Your task to perform on an android device: toggle translation in the chrome app Image 0: 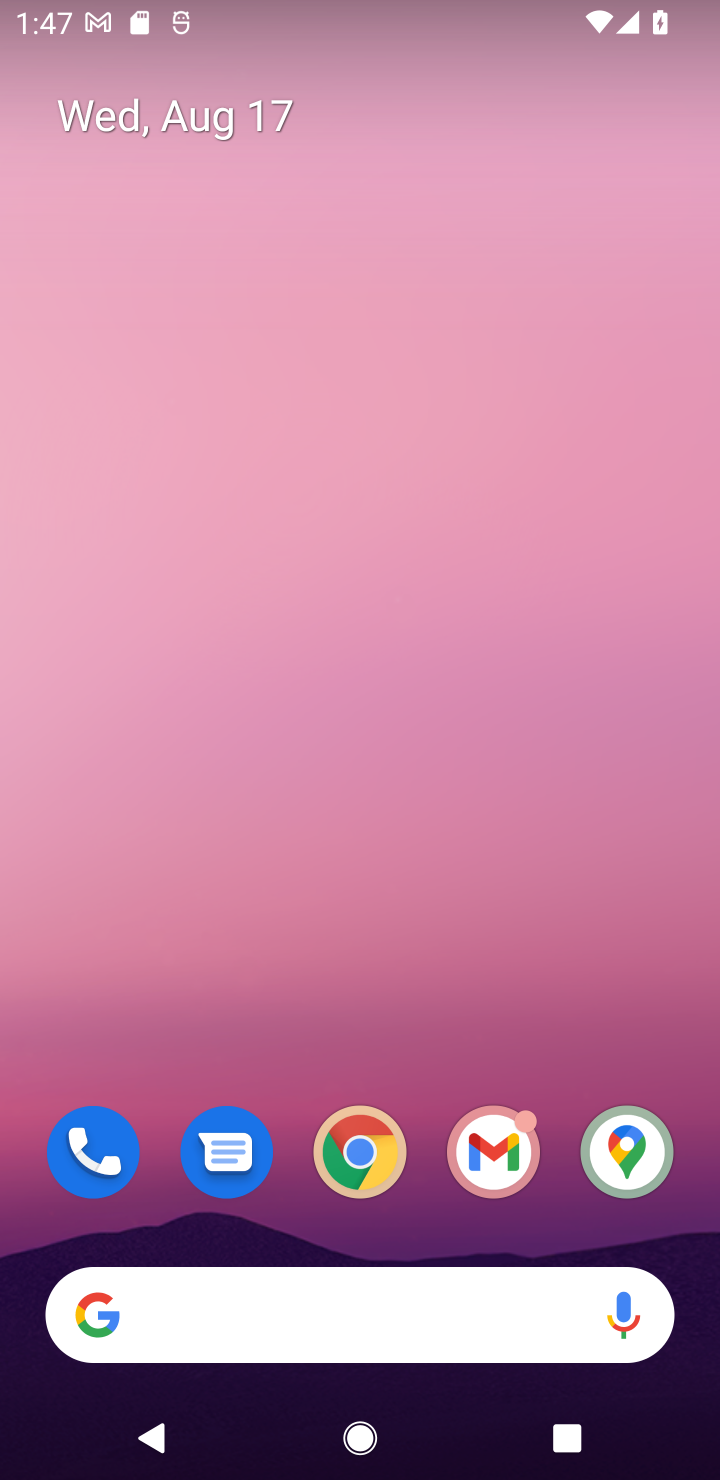
Step 0: press home button
Your task to perform on an android device: toggle translation in the chrome app Image 1: 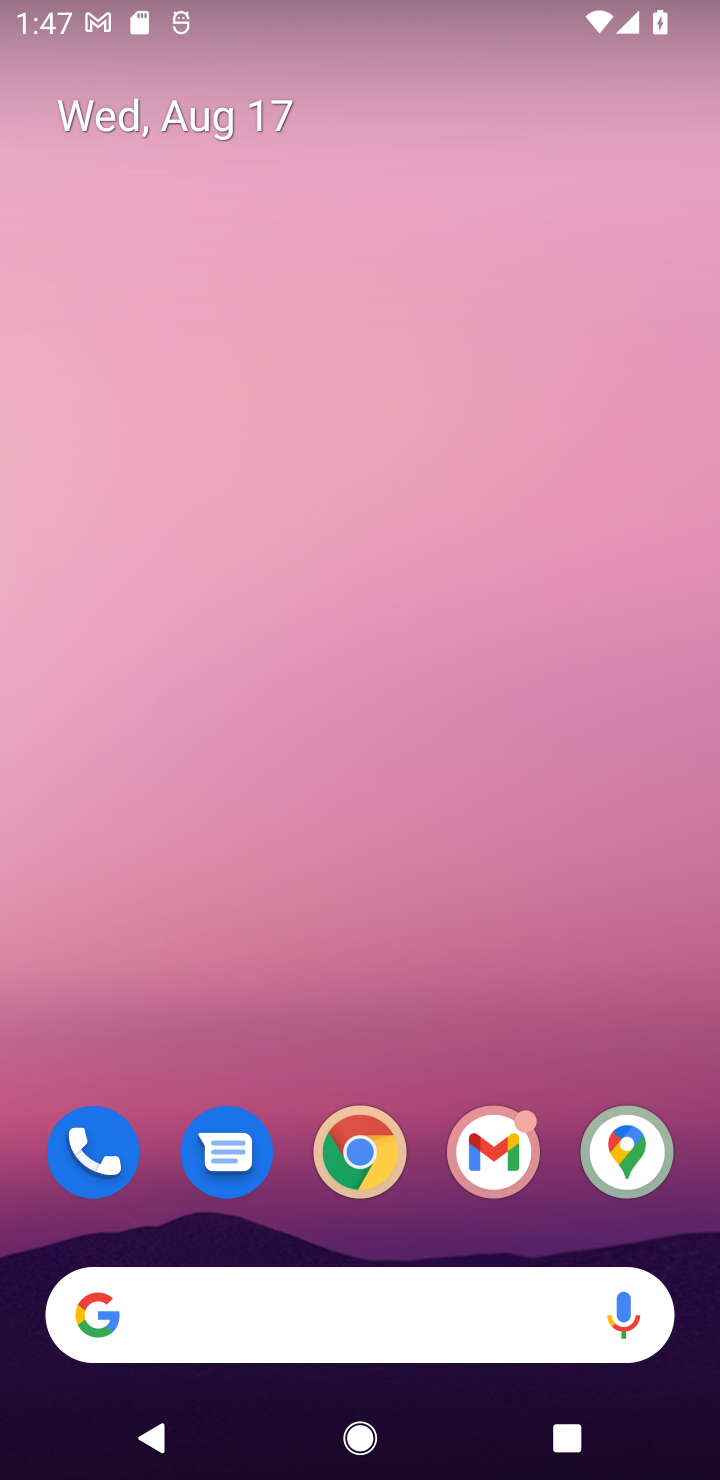
Step 1: drag from (621, 999) to (283, 38)
Your task to perform on an android device: toggle translation in the chrome app Image 2: 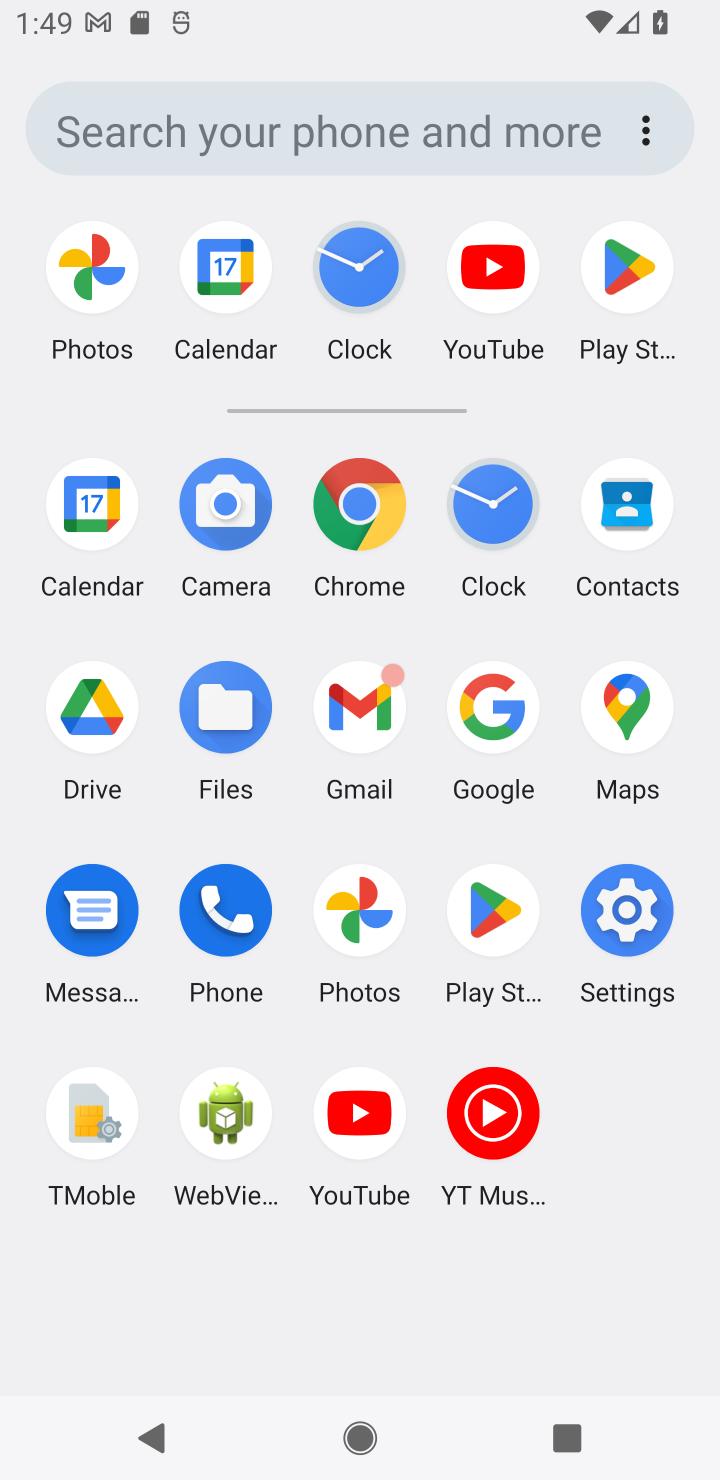
Step 2: click (364, 514)
Your task to perform on an android device: toggle translation in the chrome app Image 3: 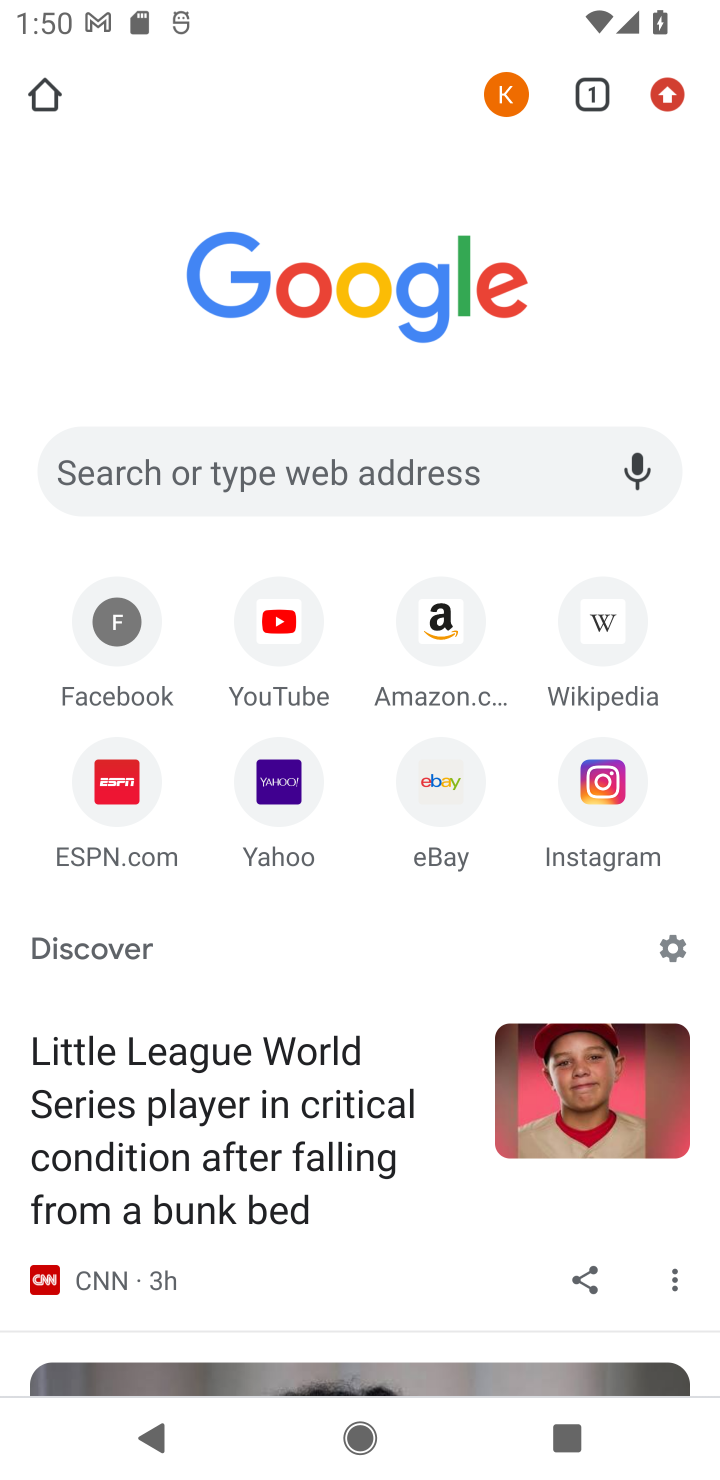
Step 3: click (673, 96)
Your task to perform on an android device: toggle translation in the chrome app Image 4: 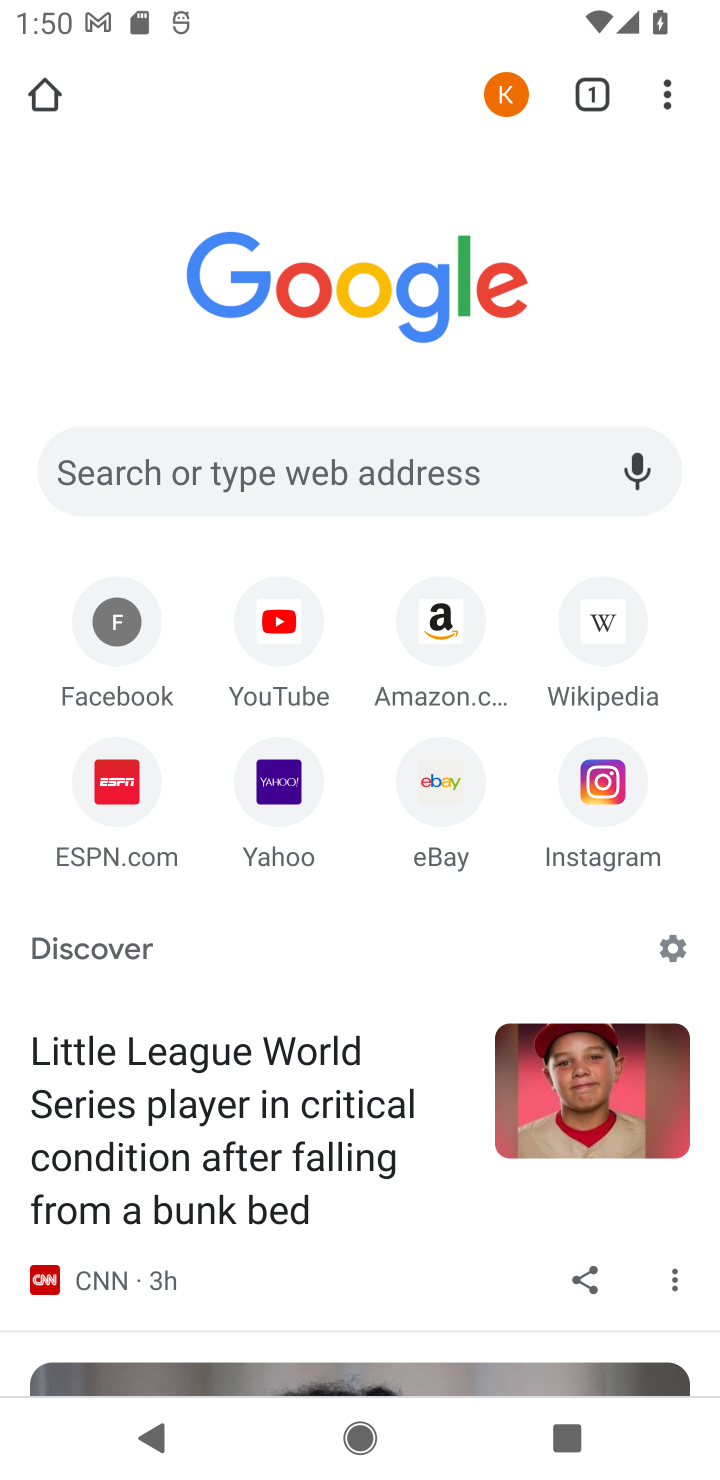
Step 4: click (655, 93)
Your task to perform on an android device: toggle translation in the chrome app Image 5: 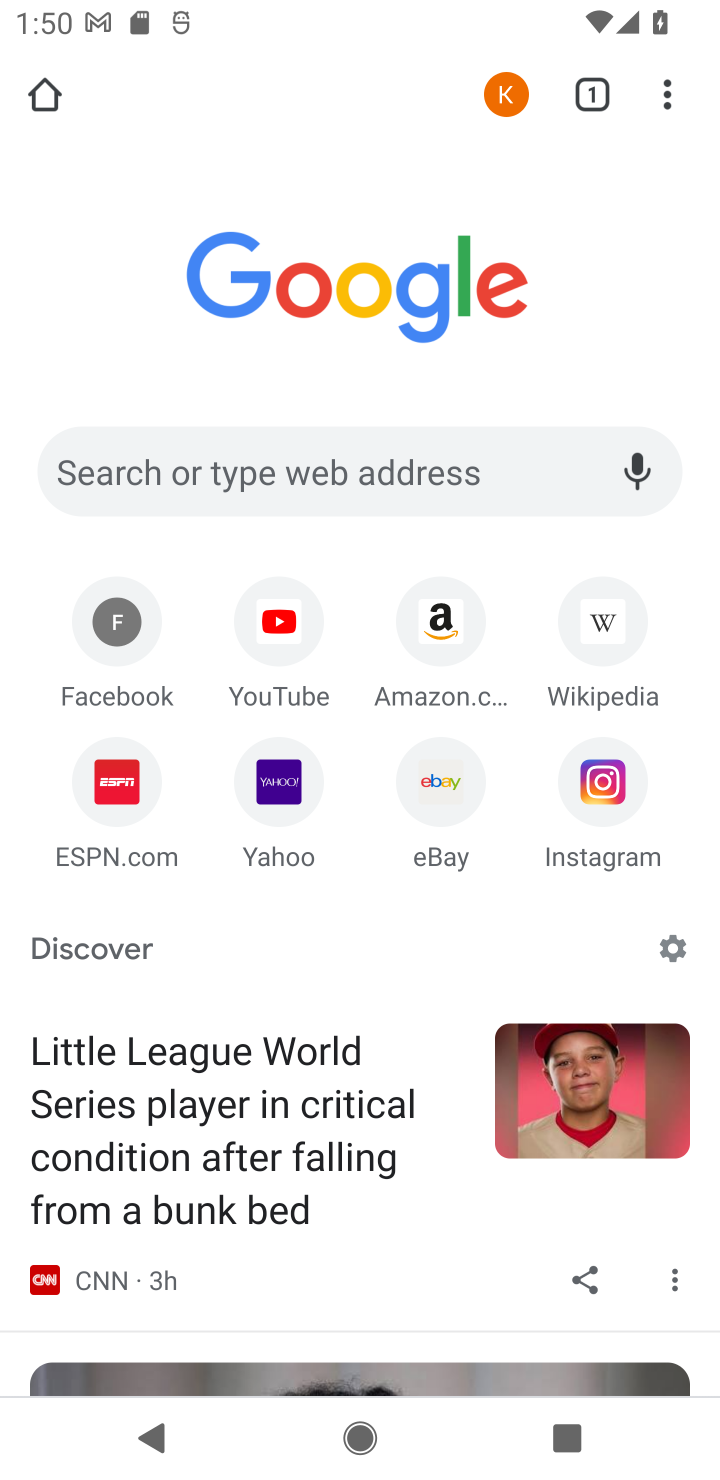
Step 5: click (657, 95)
Your task to perform on an android device: toggle translation in the chrome app Image 6: 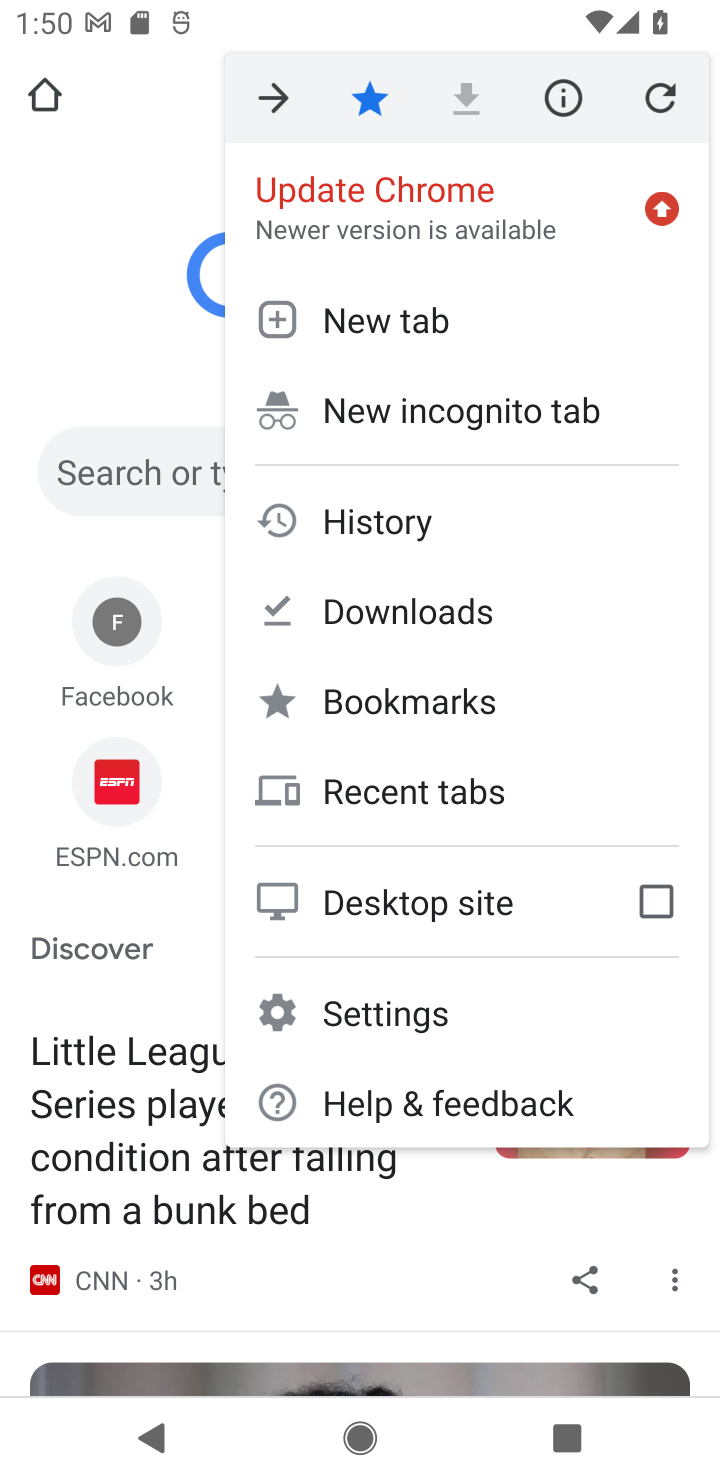
Step 6: click (355, 1021)
Your task to perform on an android device: toggle translation in the chrome app Image 7: 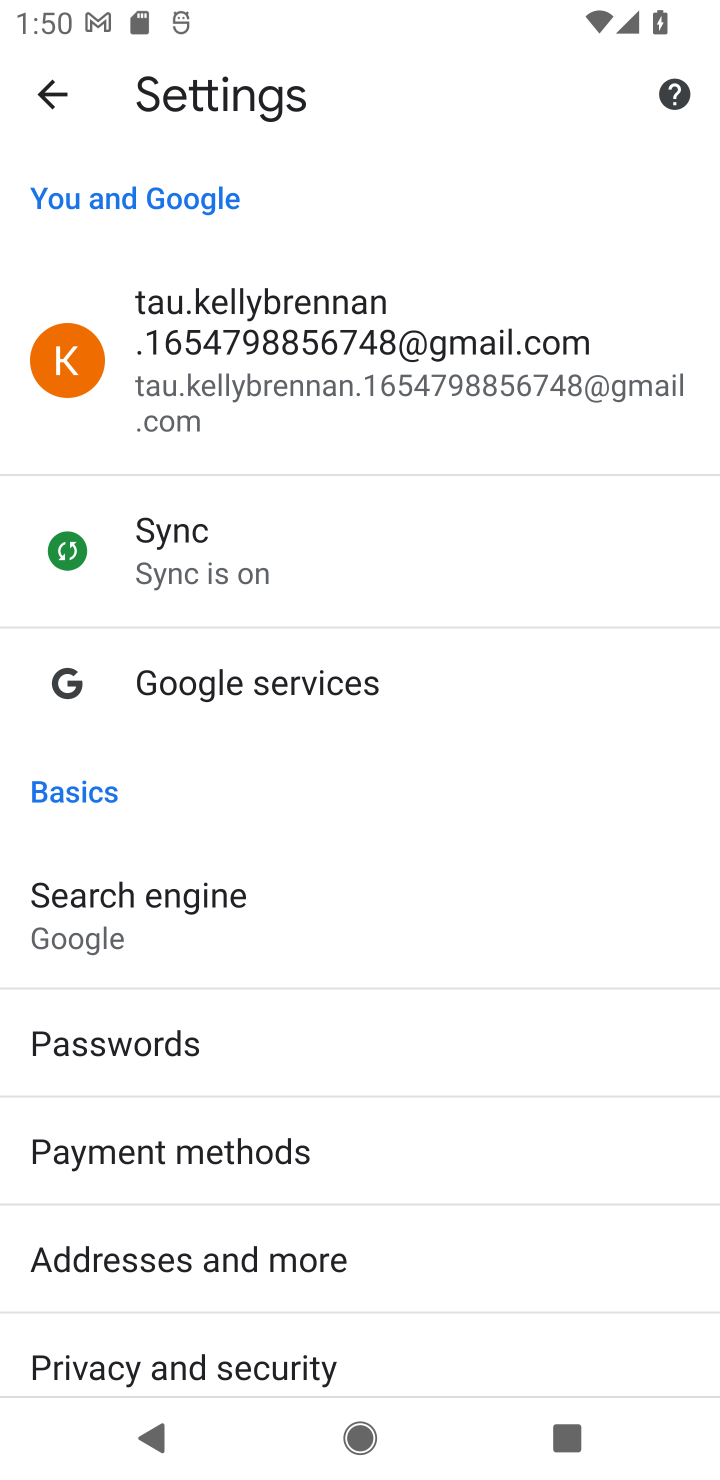
Step 7: drag from (279, 1266) to (269, 244)
Your task to perform on an android device: toggle translation in the chrome app Image 8: 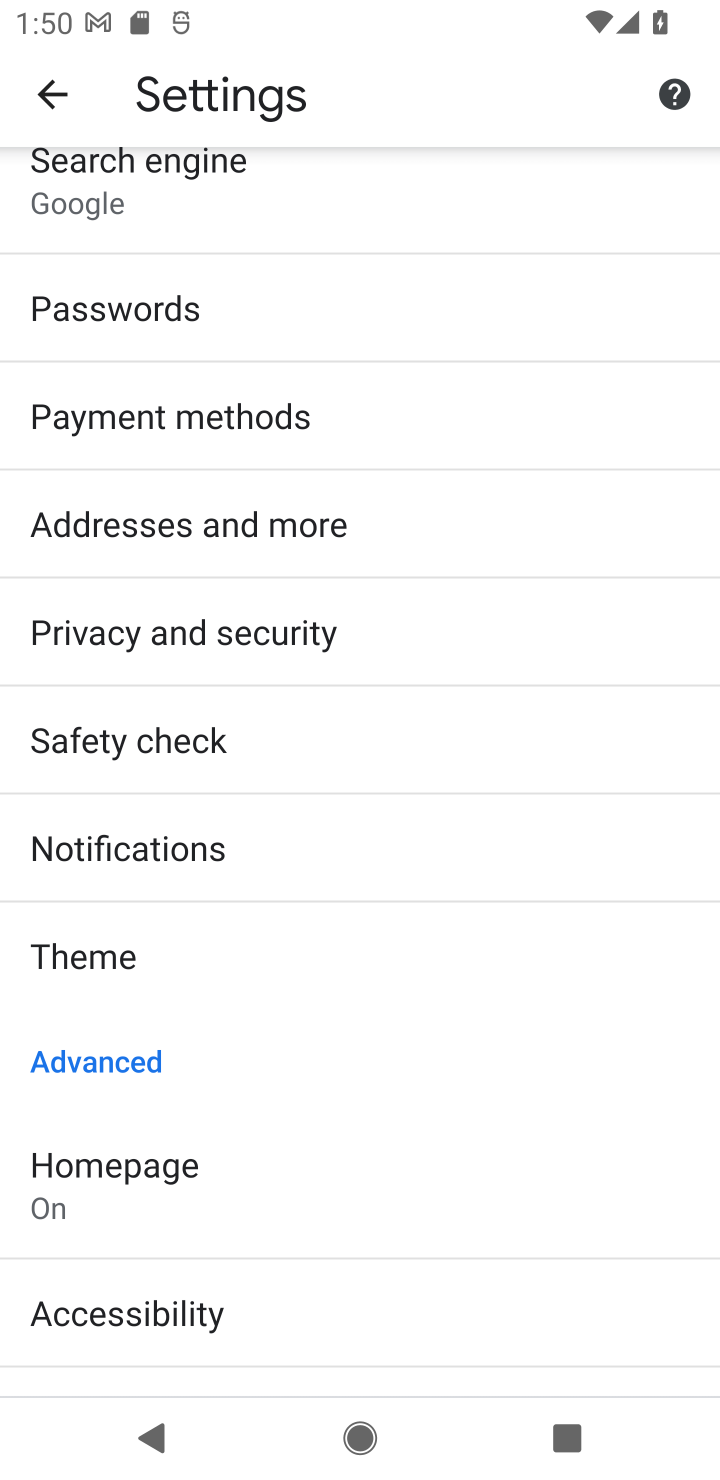
Step 8: drag from (211, 1320) to (169, 225)
Your task to perform on an android device: toggle translation in the chrome app Image 9: 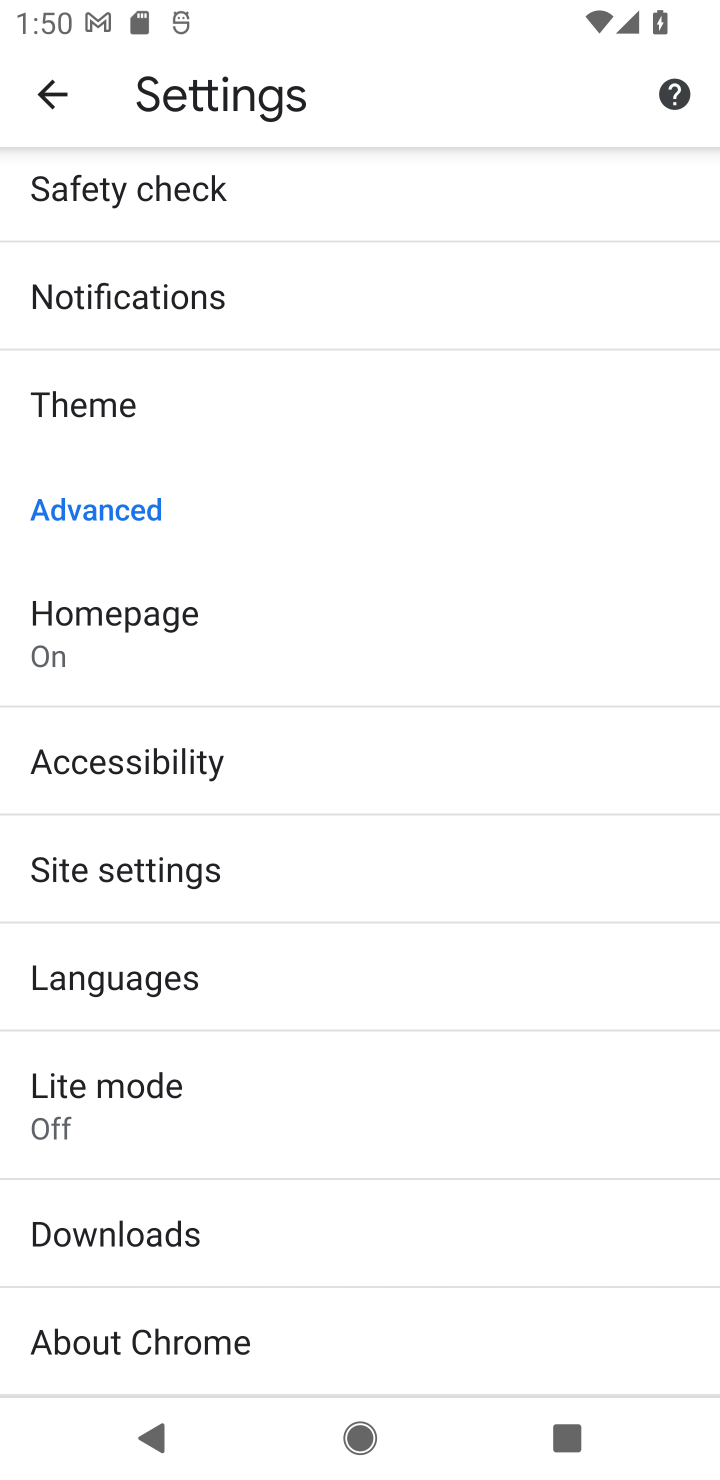
Step 9: click (167, 964)
Your task to perform on an android device: toggle translation in the chrome app Image 10: 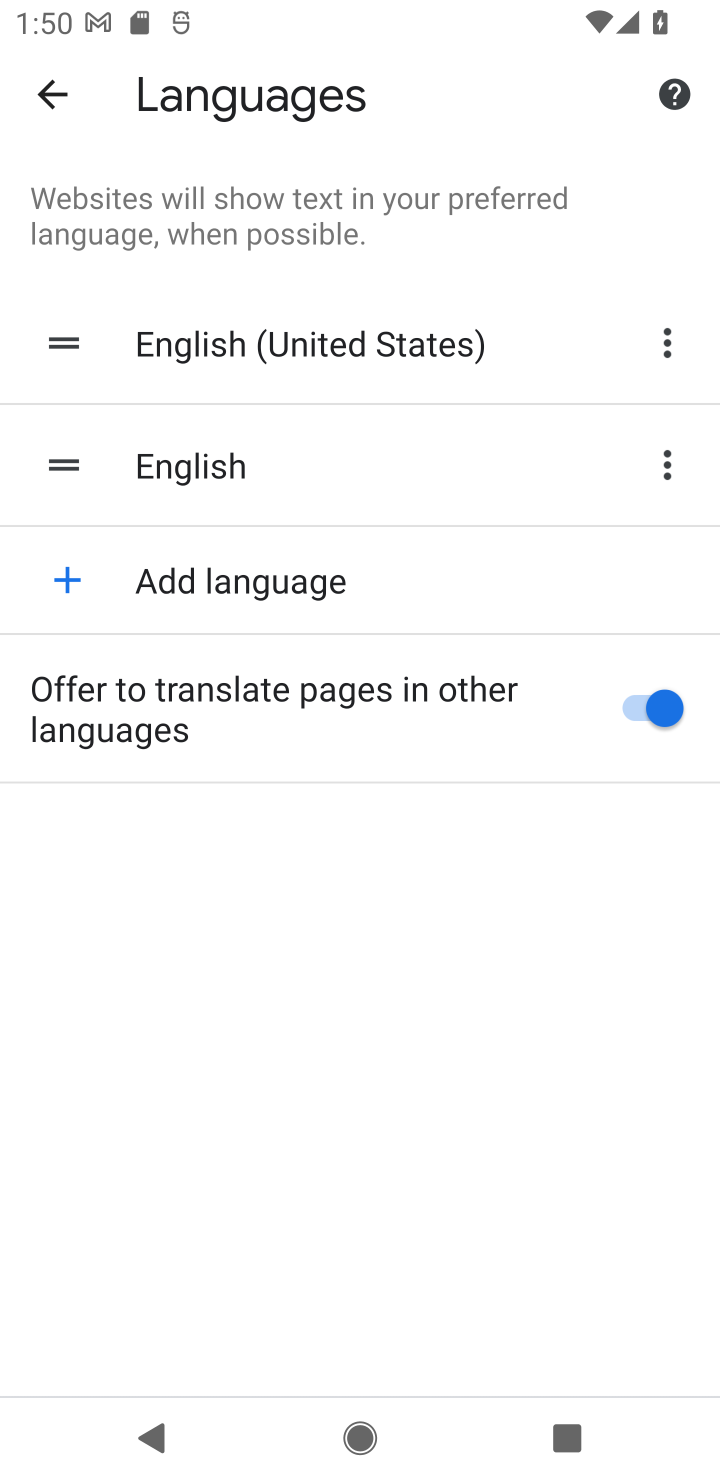
Step 10: click (601, 723)
Your task to perform on an android device: toggle translation in the chrome app Image 11: 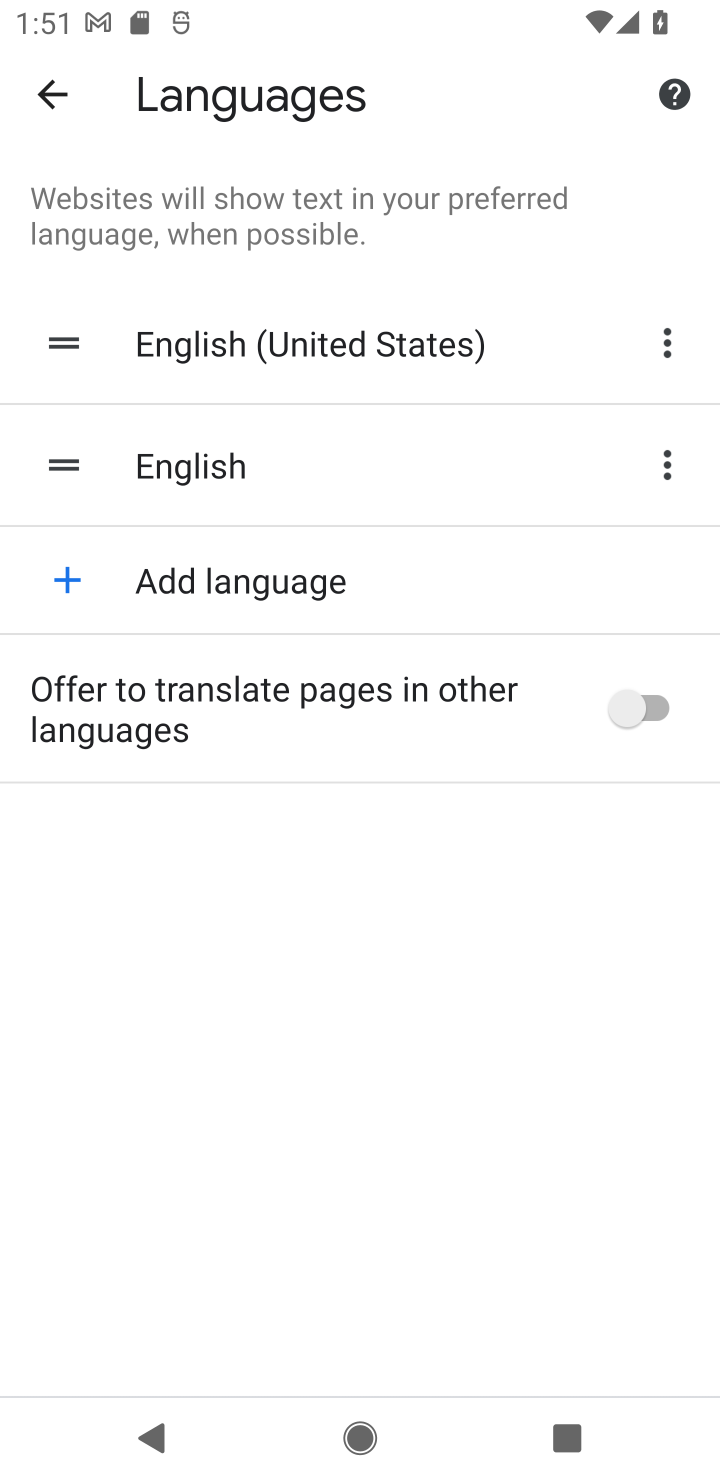
Step 11: task complete